Your task to perform on an android device: empty trash in google photos Image 0: 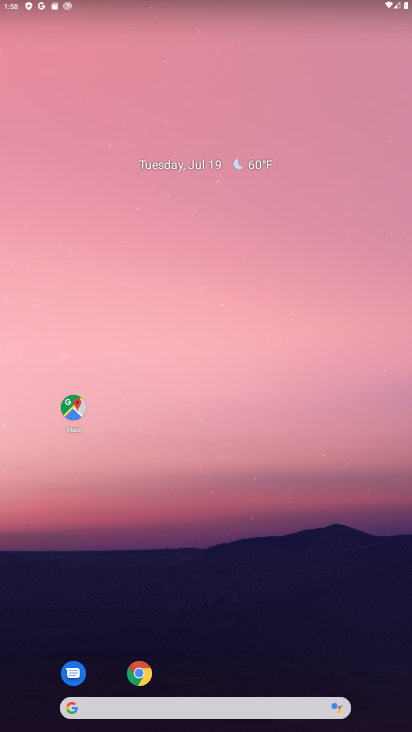
Step 0: drag from (283, 667) to (249, 160)
Your task to perform on an android device: empty trash in google photos Image 1: 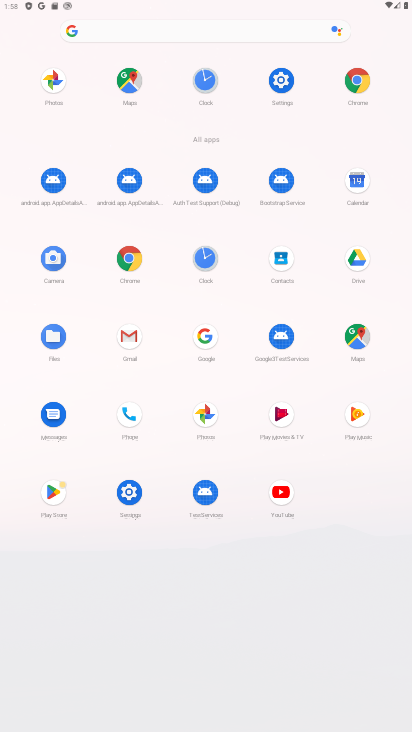
Step 1: click (60, 77)
Your task to perform on an android device: empty trash in google photos Image 2: 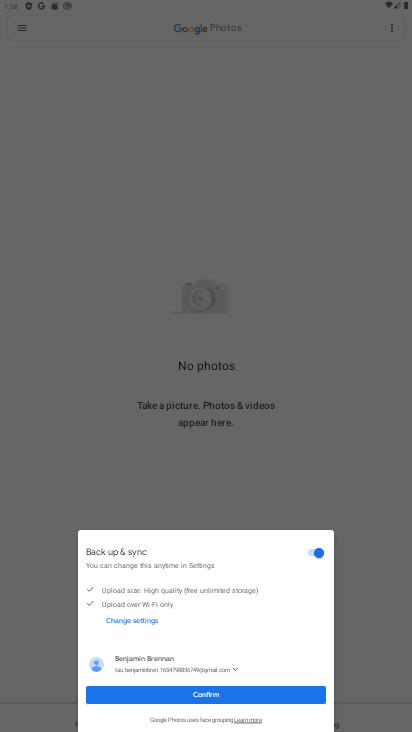
Step 2: click (180, 693)
Your task to perform on an android device: empty trash in google photos Image 3: 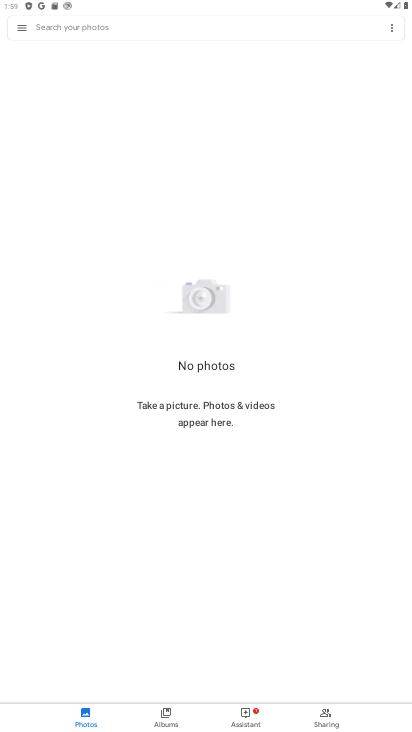
Step 3: click (23, 24)
Your task to perform on an android device: empty trash in google photos Image 4: 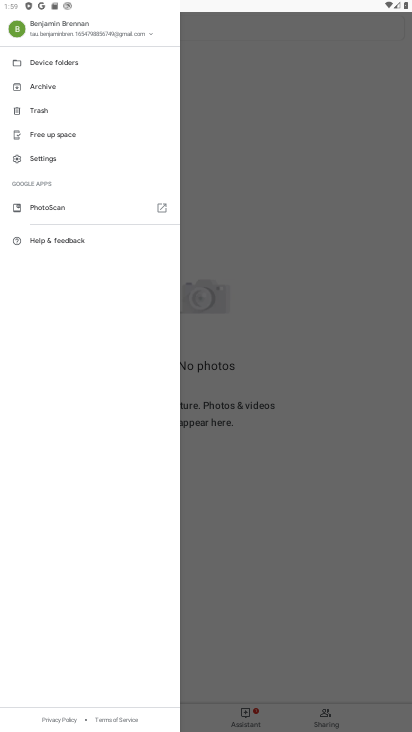
Step 4: click (38, 115)
Your task to perform on an android device: empty trash in google photos Image 5: 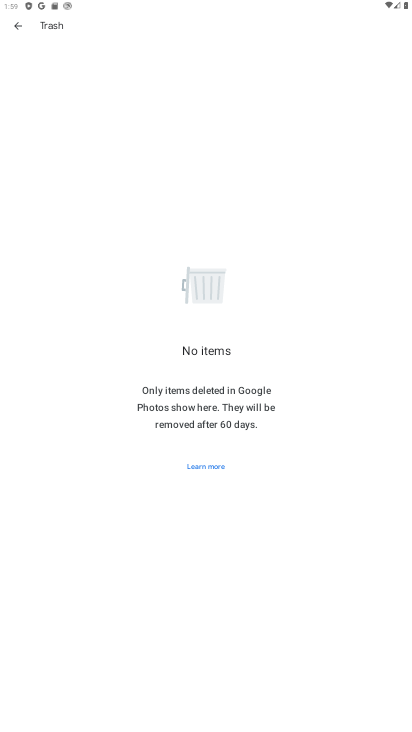
Step 5: task complete